Your task to perform on an android device: toggle data saver in the chrome app Image 0: 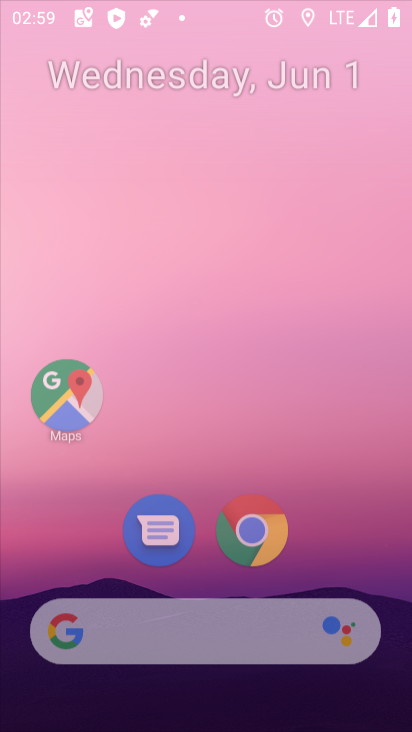
Step 0: press home button
Your task to perform on an android device: toggle data saver in the chrome app Image 1: 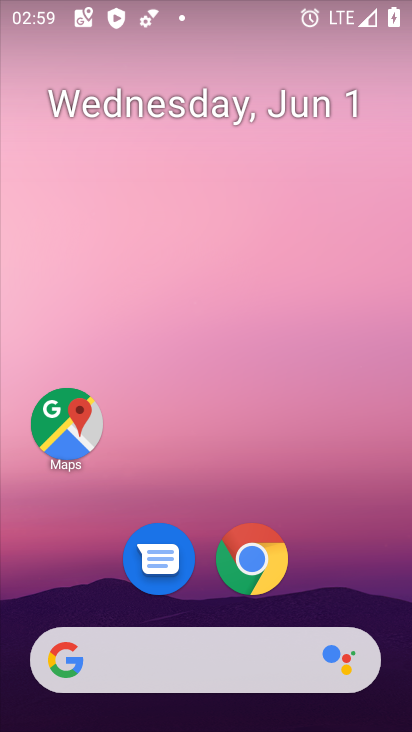
Step 1: click (253, 562)
Your task to perform on an android device: toggle data saver in the chrome app Image 2: 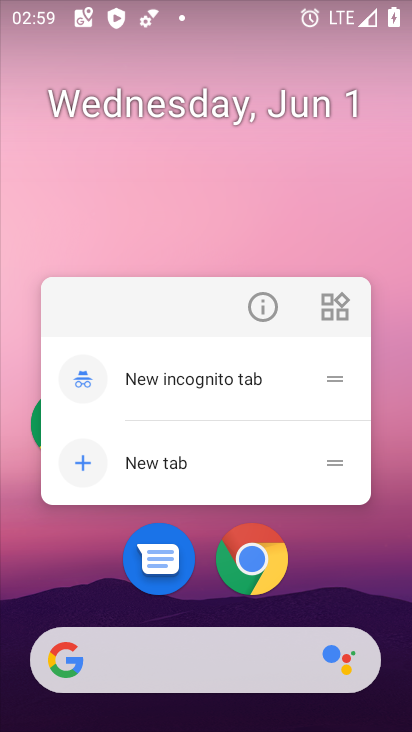
Step 2: click (253, 560)
Your task to perform on an android device: toggle data saver in the chrome app Image 3: 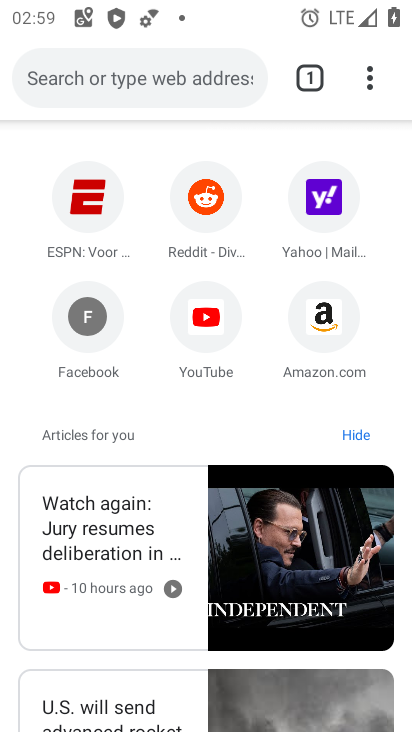
Step 3: drag from (365, 74) to (60, 640)
Your task to perform on an android device: toggle data saver in the chrome app Image 4: 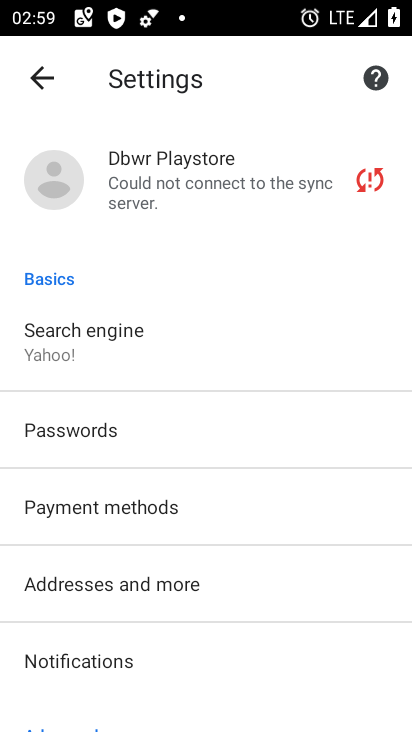
Step 4: drag from (232, 669) to (208, 373)
Your task to perform on an android device: toggle data saver in the chrome app Image 5: 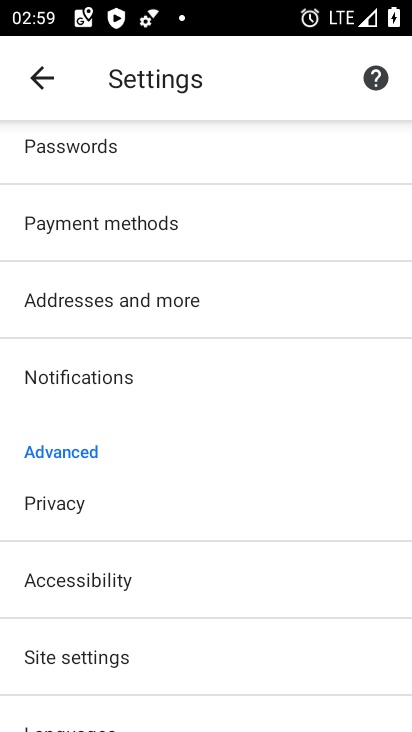
Step 5: drag from (250, 661) to (262, 361)
Your task to perform on an android device: toggle data saver in the chrome app Image 6: 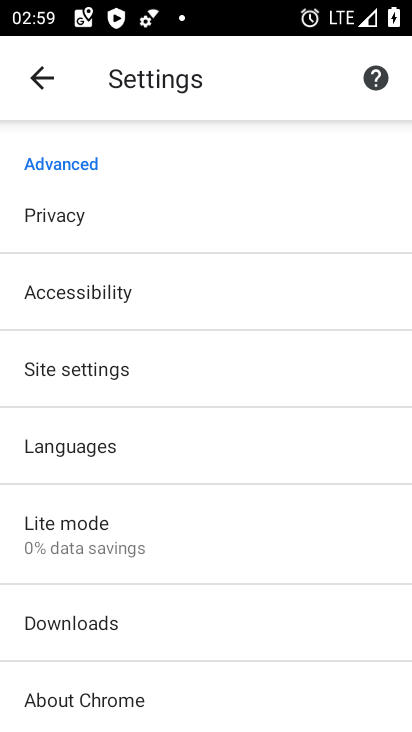
Step 6: click (71, 527)
Your task to perform on an android device: toggle data saver in the chrome app Image 7: 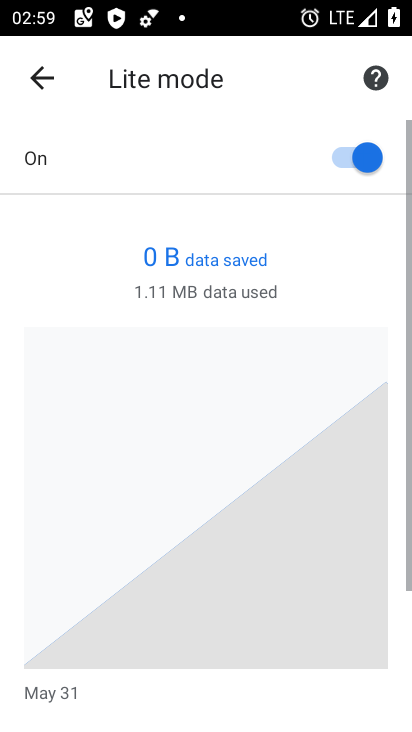
Step 7: click (378, 153)
Your task to perform on an android device: toggle data saver in the chrome app Image 8: 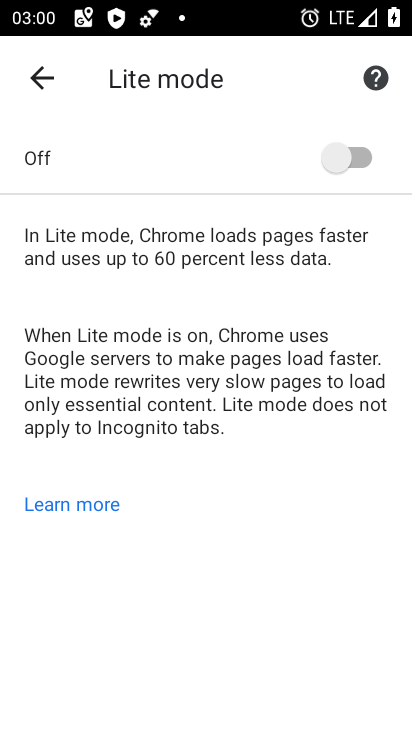
Step 8: task complete